Your task to perform on an android device: see sites visited before in the chrome app Image 0: 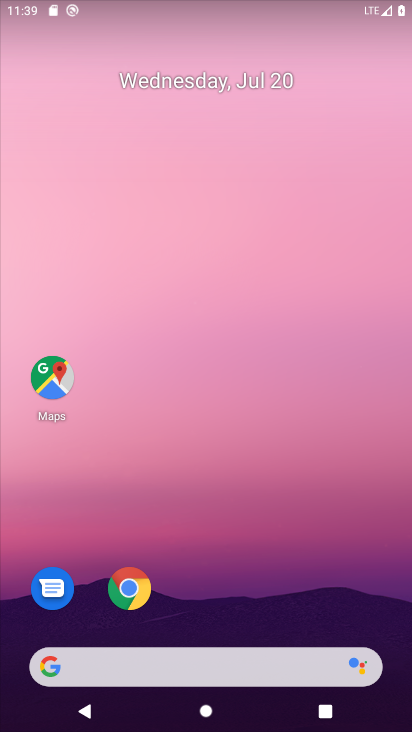
Step 0: press home button
Your task to perform on an android device: see sites visited before in the chrome app Image 1: 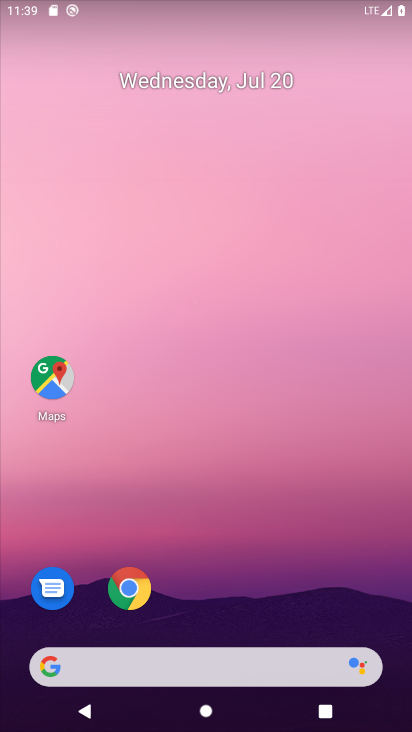
Step 1: click (124, 585)
Your task to perform on an android device: see sites visited before in the chrome app Image 2: 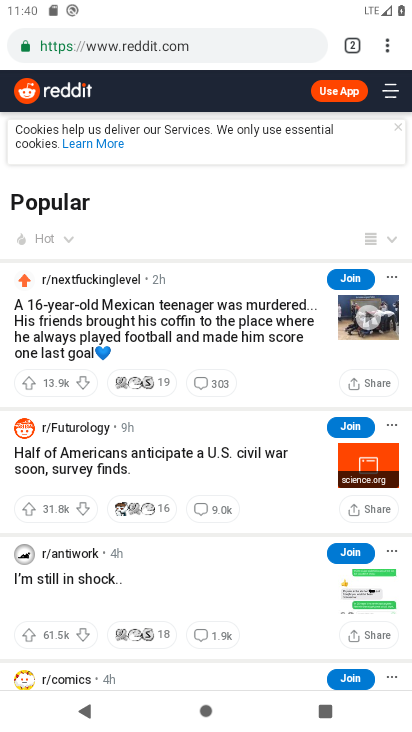
Step 2: click (386, 45)
Your task to perform on an android device: see sites visited before in the chrome app Image 3: 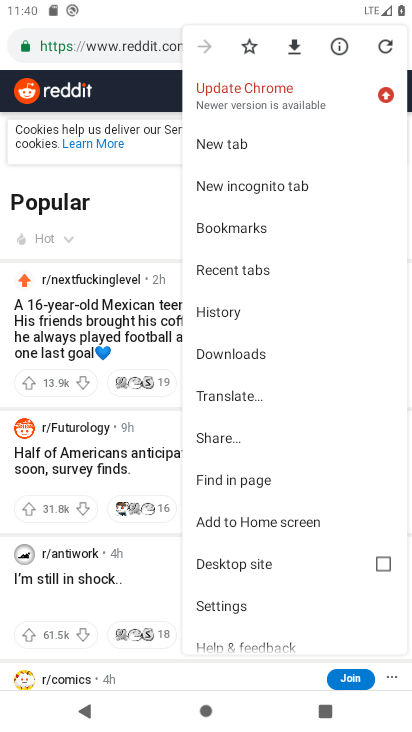
Step 3: click (245, 311)
Your task to perform on an android device: see sites visited before in the chrome app Image 4: 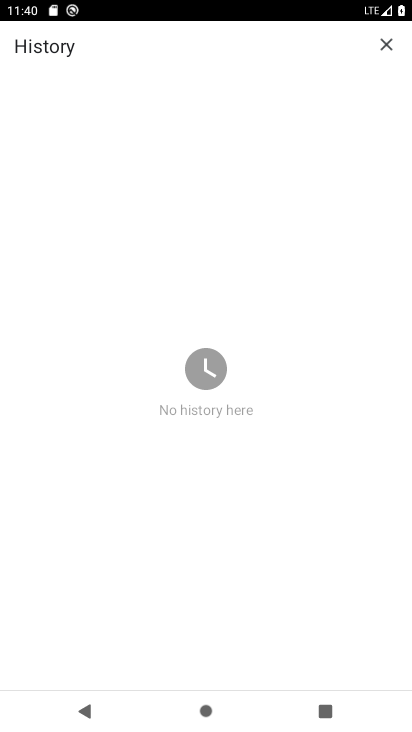
Step 4: task complete